Your task to perform on an android device: When is my next meeting? Image 0: 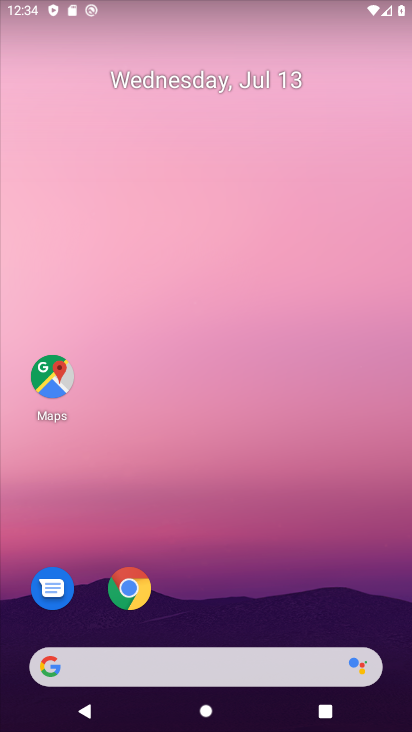
Step 0: click (369, 59)
Your task to perform on an android device: When is my next meeting? Image 1: 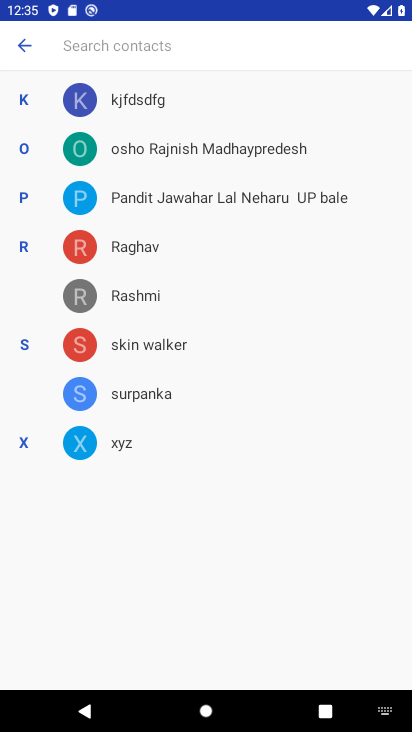
Step 1: press home button
Your task to perform on an android device: When is my next meeting? Image 2: 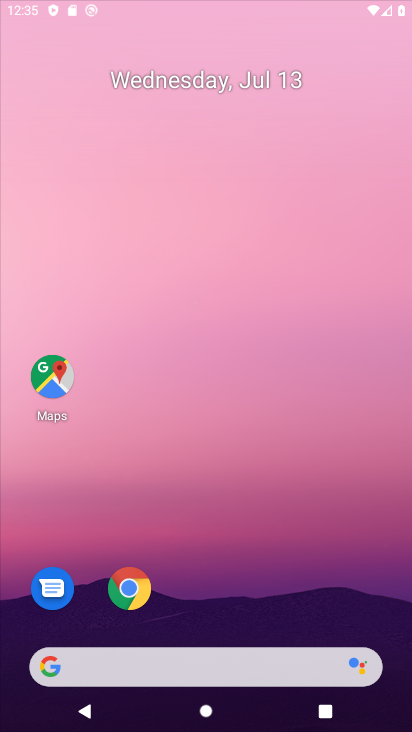
Step 2: drag from (161, 586) to (300, 76)
Your task to perform on an android device: When is my next meeting? Image 3: 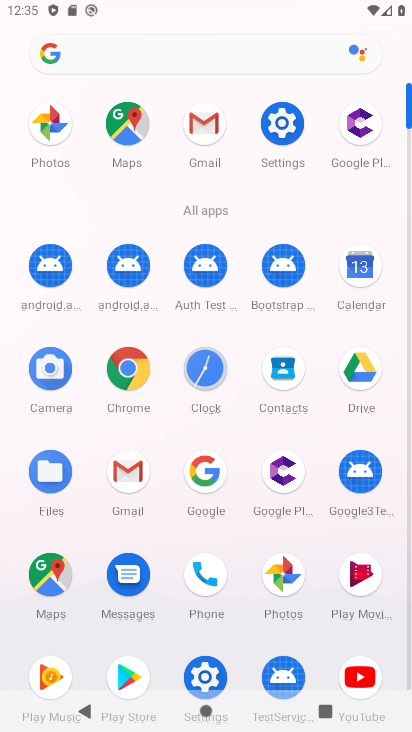
Step 3: click (287, 124)
Your task to perform on an android device: When is my next meeting? Image 4: 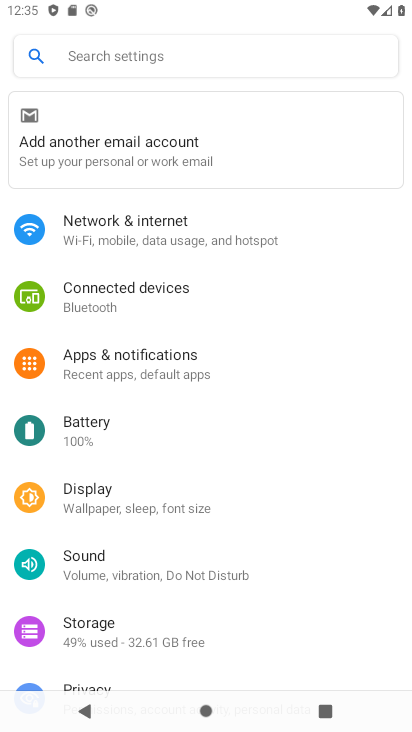
Step 4: press home button
Your task to perform on an android device: When is my next meeting? Image 5: 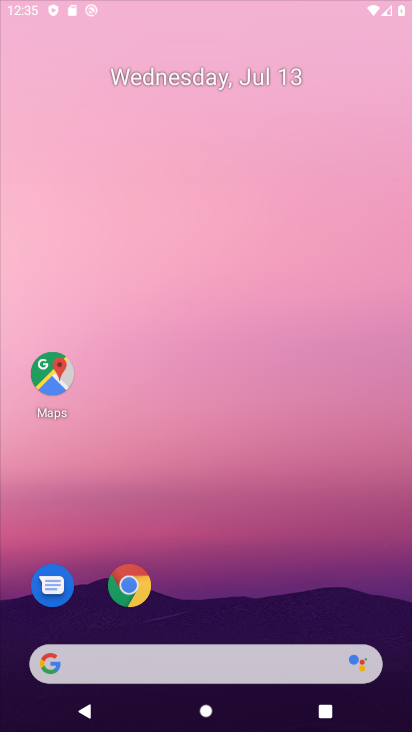
Step 5: drag from (193, 595) to (257, 118)
Your task to perform on an android device: When is my next meeting? Image 6: 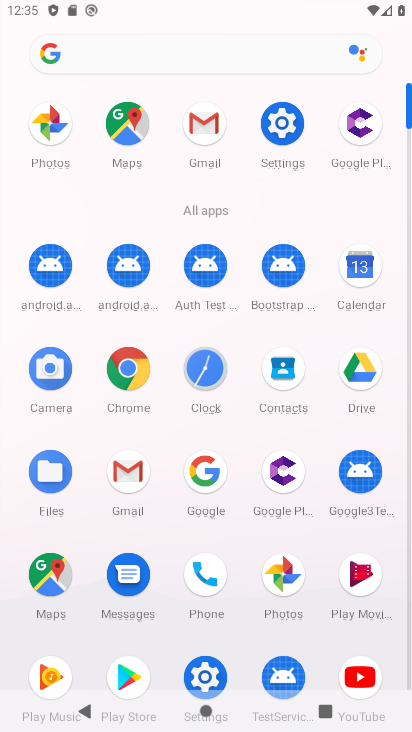
Step 6: click (366, 263)
Your task to perform on an android device: When is my next meeting? Image 7: 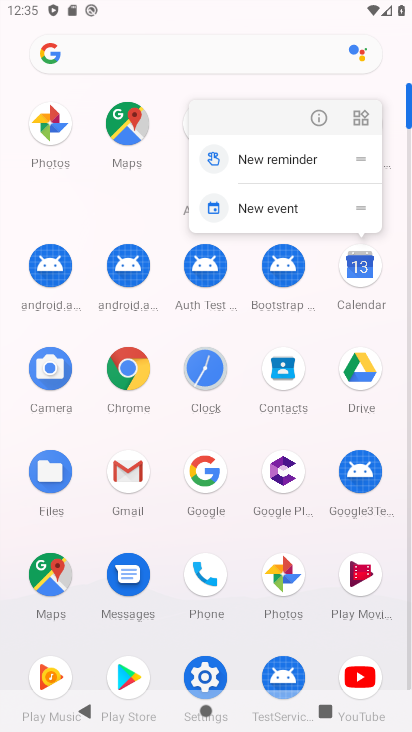
Step 7: click (326, 116)
Your task to perform on an android device: When is my next meeting? Image 8: 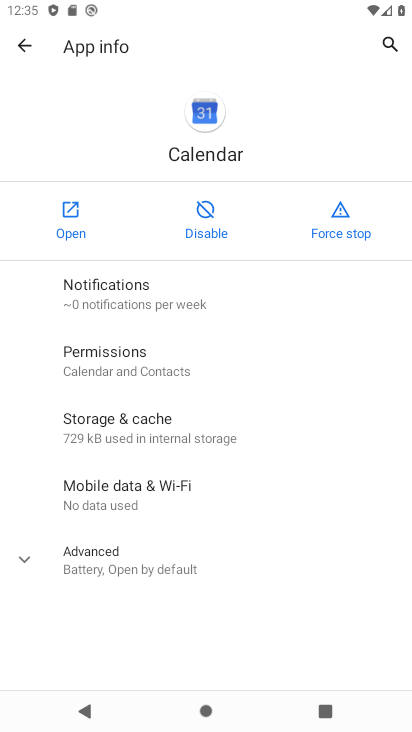
Step 8: click (86, 226)
Your task to perform on an android device: When is my next meeting? Image 9: 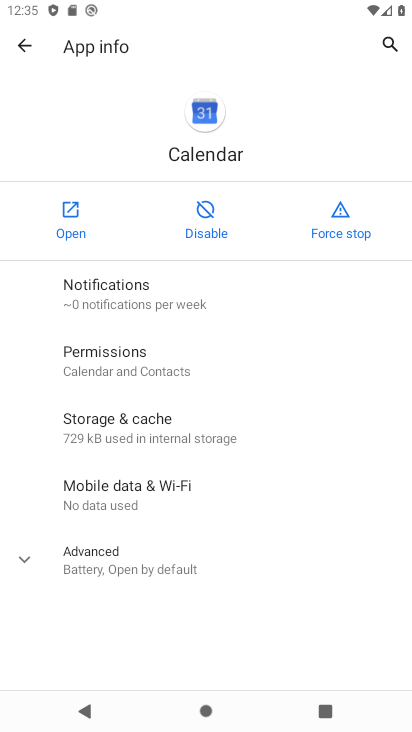
Step 9: click (75, 222)
Your task to perform on an android device: When is my next meeting? Image 10: 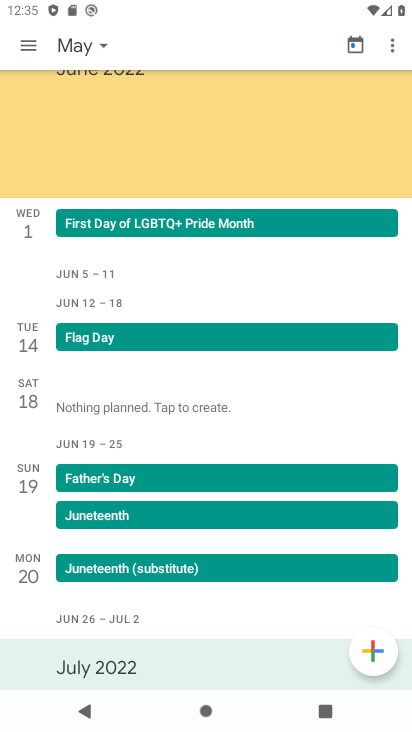
Step 10: click (97, 44)
Your task to perform on an android device: When is my next meeting? Image 11: 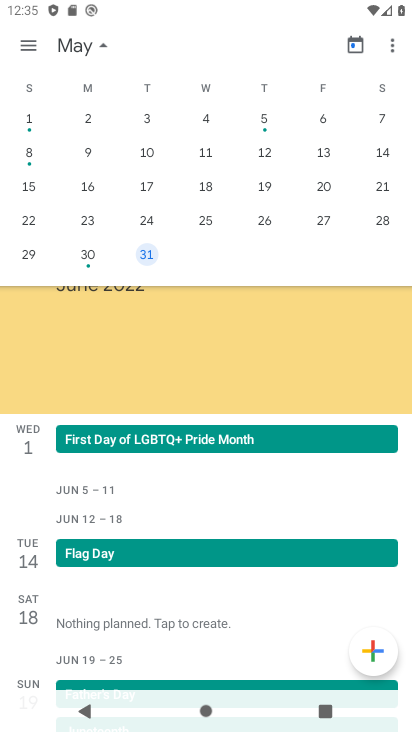
Step 11: drag from (347, 182) to (0, 223)
Your task to perform on an android device: When is my next meeting? Image 12: 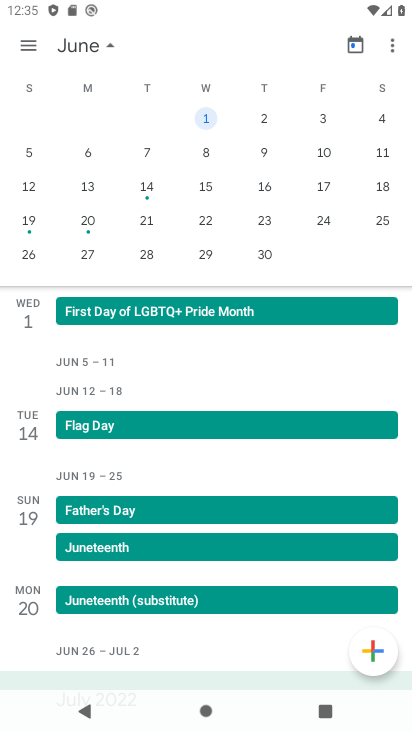
Step 12: drag from (338, 178) to (8, 204)
Your task to perform on an android device: When is my next meeting? Image 13: 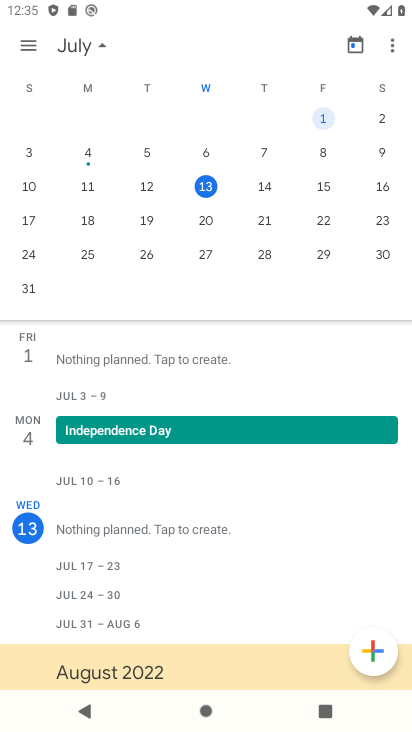
Step 13: click (380, 190)
Your task to perform on an android device: When is my next meeting? Image 14: 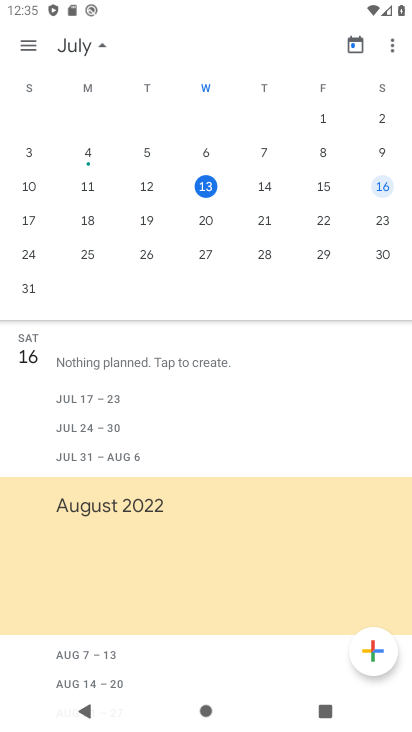
Step 14: click (378, 186)
Your task to perform on an android device: When is my next meeting? Image 15: 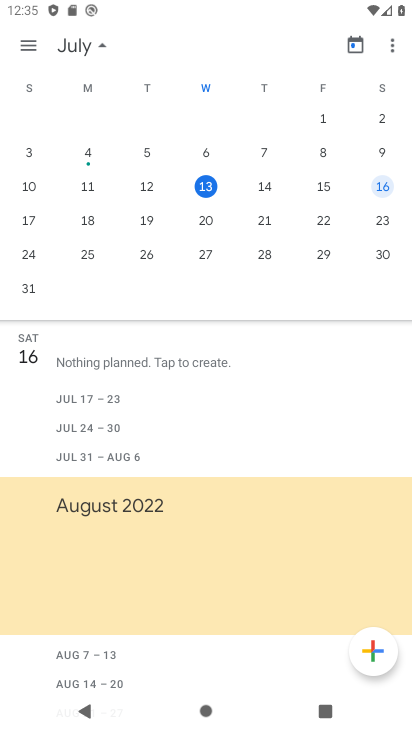
Step 15: task complete